Your task to perform on an android device: toggle priority inbox in the gmail app Image 0: 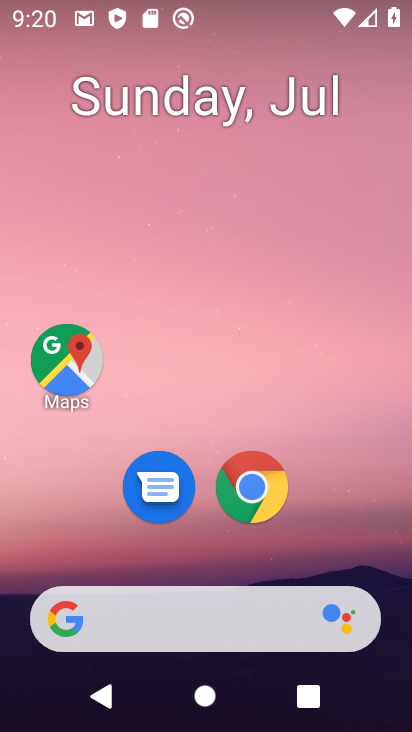
Step 0: drag from (258, 498) to (291, 17)
Your task to perform on an android device: toggle priority inbox in the gmail app Image 1: 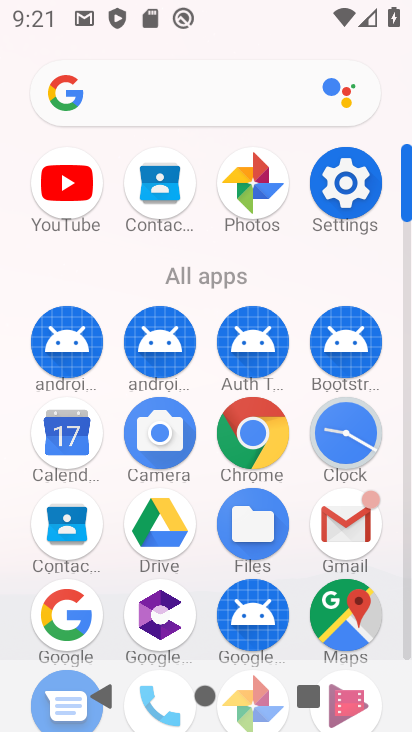
Step 1: click (345, 521)
Your task to perform on an android device: toggle priority inbox in the gmail app Image 2: 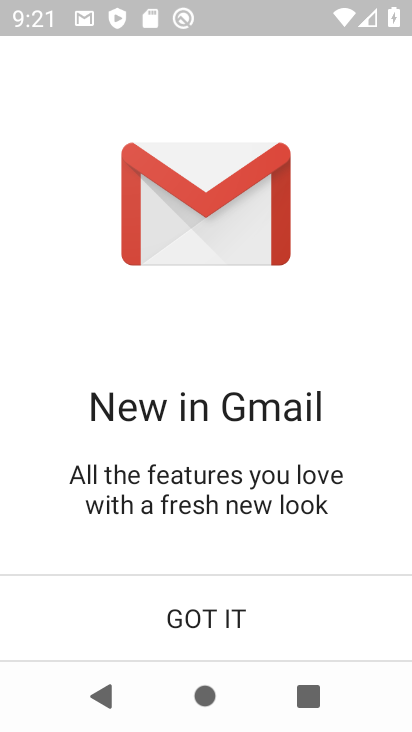
Step 2: click (213, 603)
Your task to perform on an android device: toggle priority inbox in the gmail app Image 3: 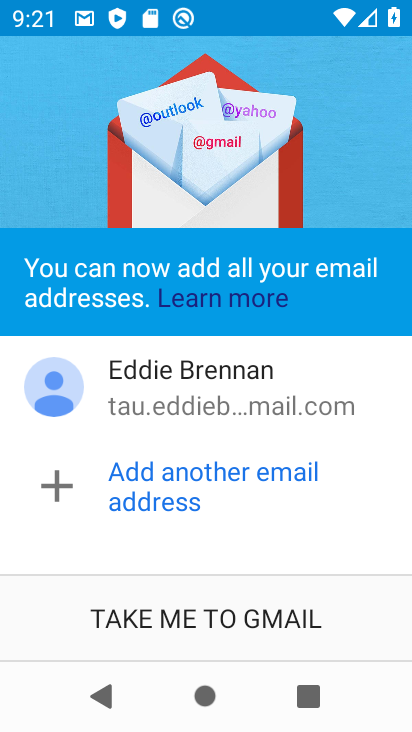
Step 3: click (174, 608)
Your task to perform on an android device: toggle priority inbox in the gmail app Image 4: 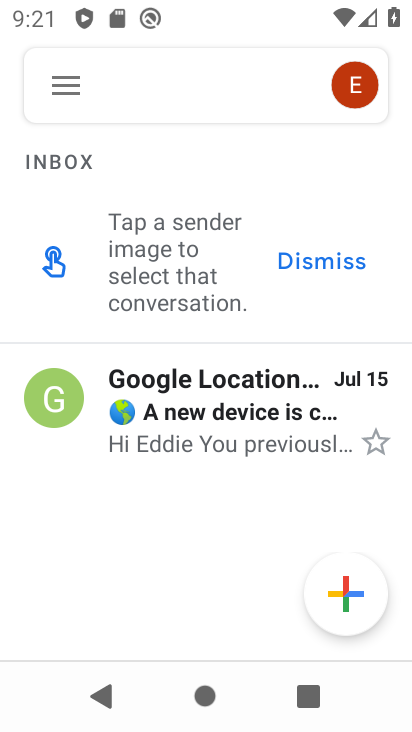
Step 4: click (56, 85)
Your task to perform on an android device: toggle priority inbox in the gmail app Image 5: 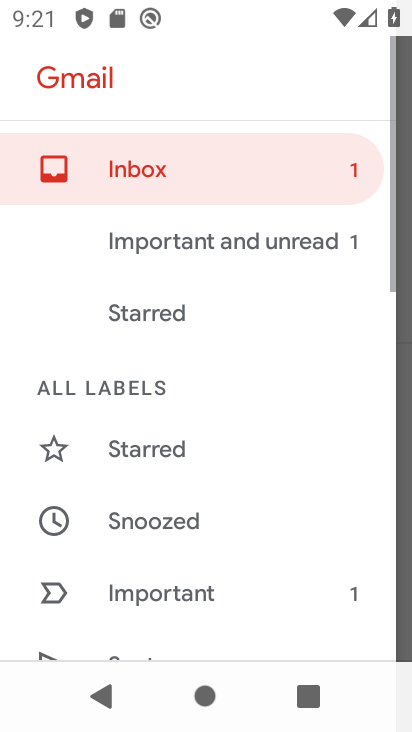
Step 5: drag from (140, 555) to (254, 70)
Your task to perform on an android device: toggle priority inbox in the gmail app Image 6: 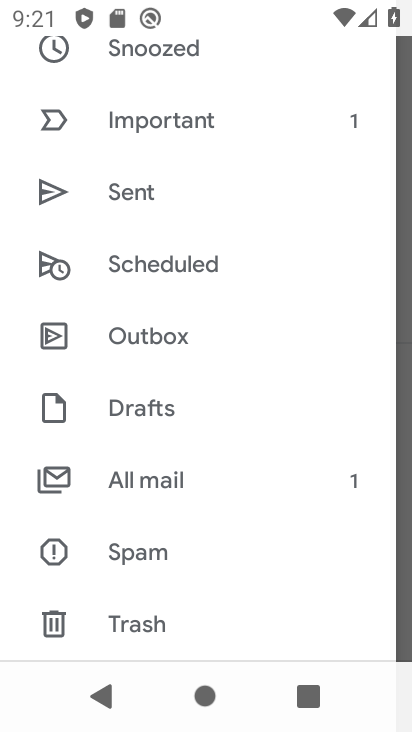
Step 6: drag from (224, 584) to (298, 53)
Your task to perform on an android device: toggle priority inbox in the gmail app Image 7: 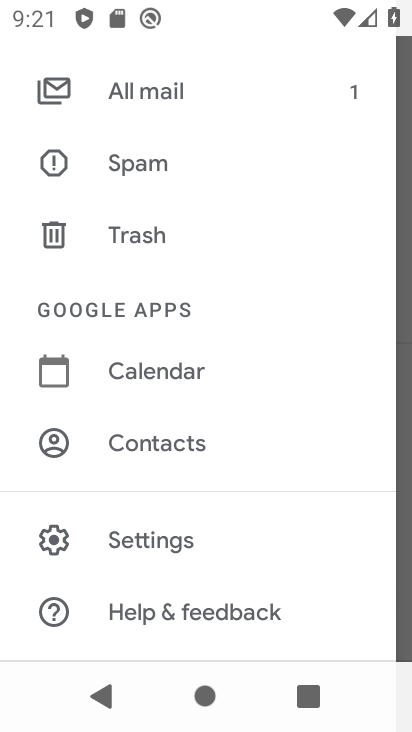
Step 7: click (127, 542)
Your task to perform on an android device: toggle priority inbox in the gmail app Image 8: 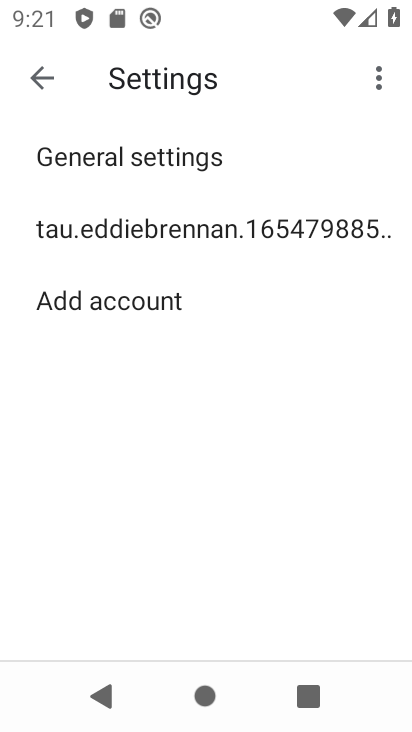
Step 8: click (110, 218)
Your task to perform on an android device: toggle priority inbox in the gmail app Image 9: 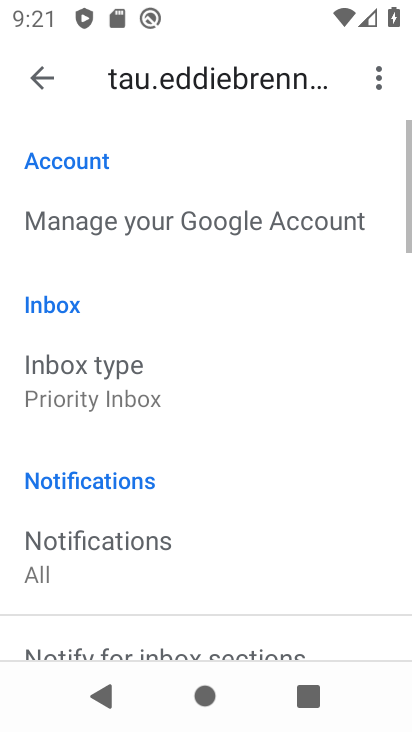
Step 9: click (100, 389)
Your task to perform on an android device: toggle priority inbox in the gmail app Image 10: 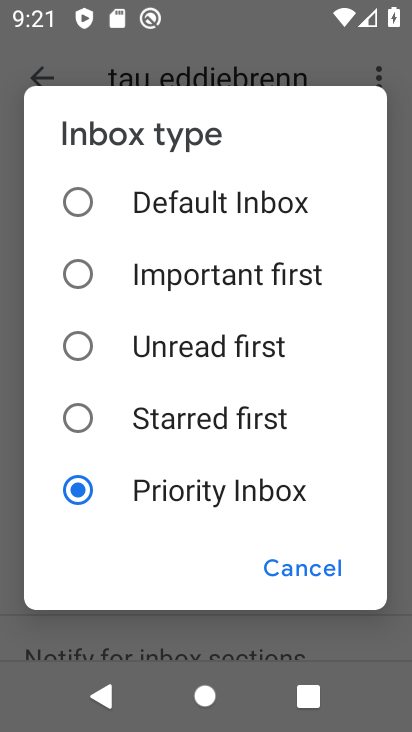
Step 10: task complete